Your task to perform on an android device: Add razer deathadder to the cart on walmart.com Image 0: 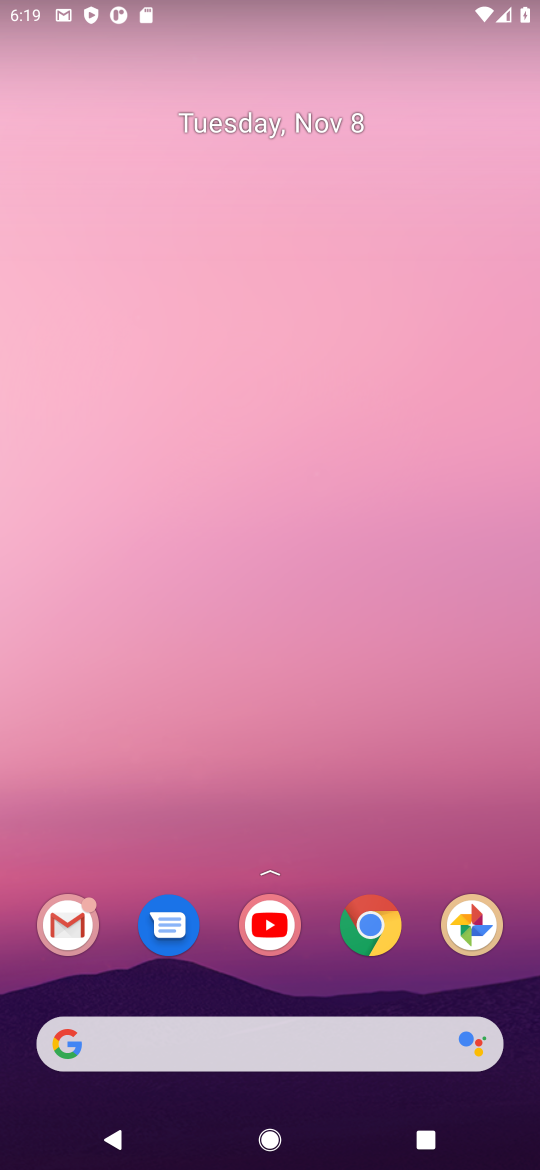
Step 0: click (373, 938)
Your task to perform on an android device: Add razer deathadder to the cart on walmart.com Image 1: 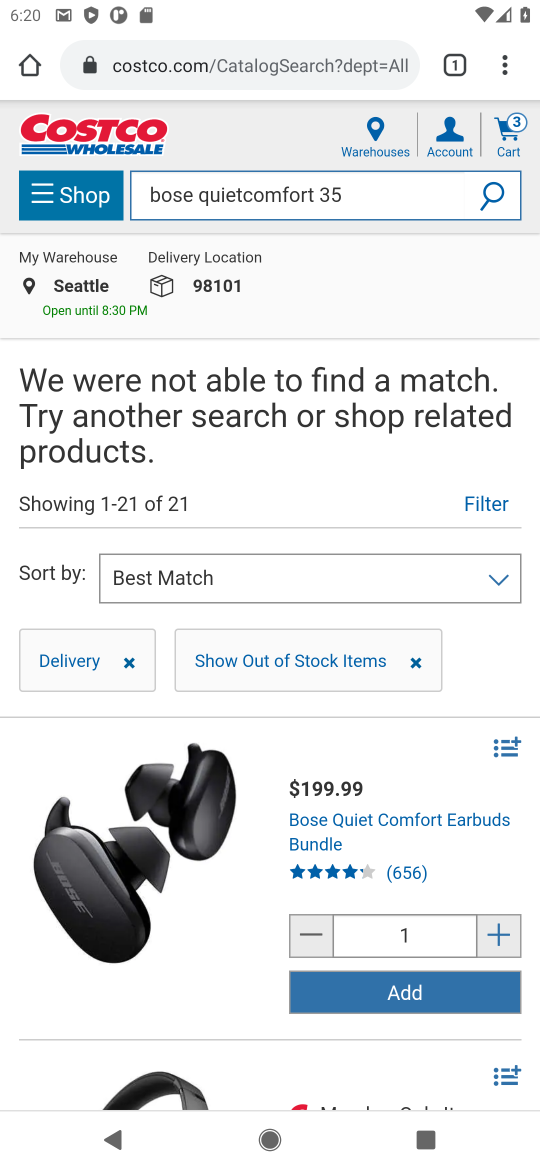
Step 1: click (273, 64)
Your task to perform on an android device: Add razer deathadder to the cart on walmart.com Image 2: 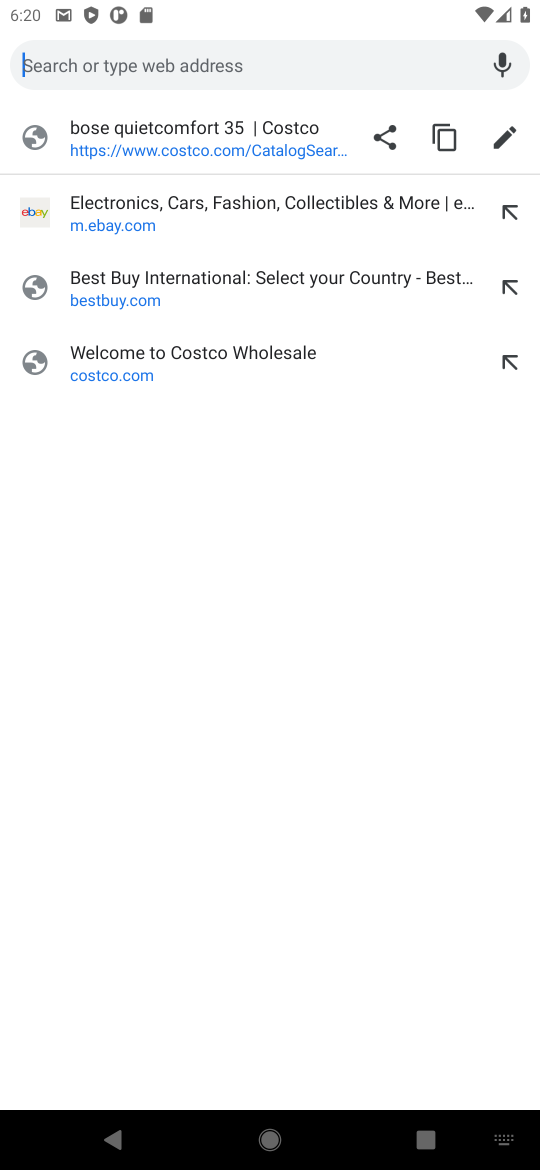
Step 2: type "walmart"
Your task to perform on an android device: Add razer deathadder to the cart on walmart.com Image 3: 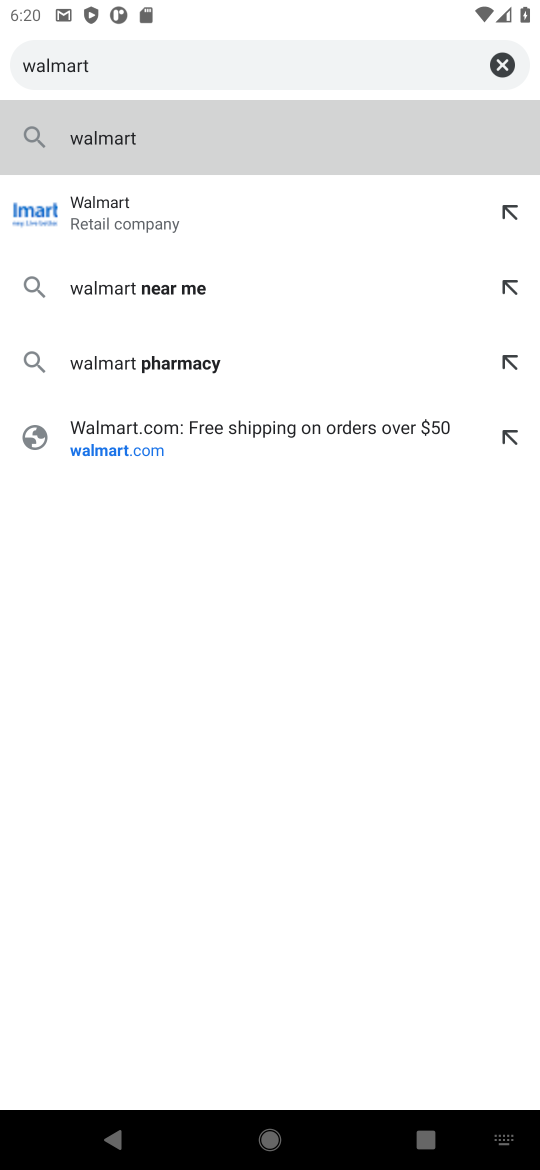
Step 3: click (94, 217)
Your task to perform on an android device: Add razer deathadder to the cart on walmart.com Image 4: 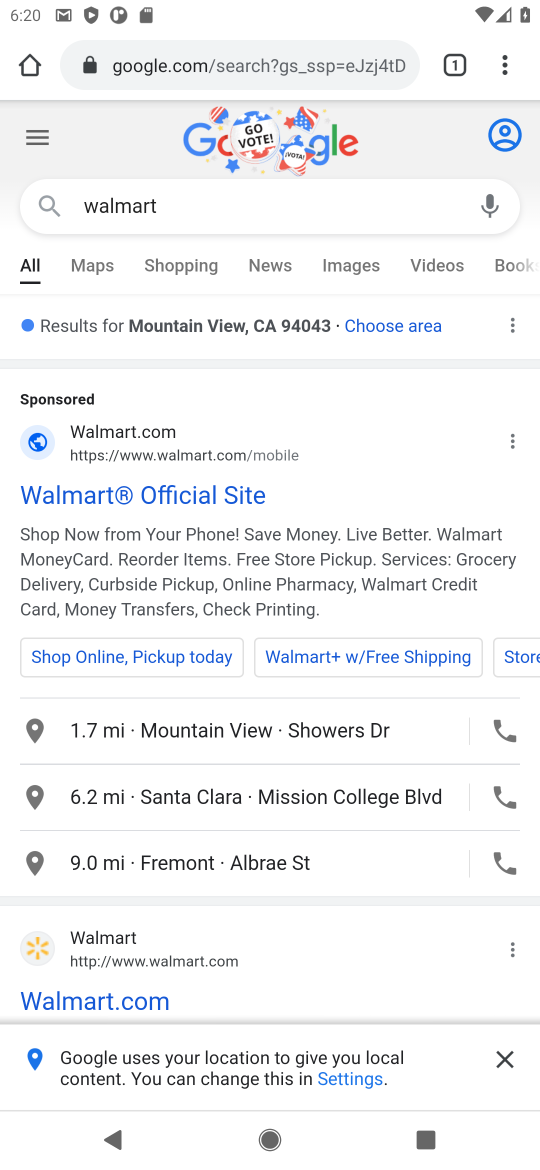
Step 4: click (84, 1003)
Your task to perform on an android device: Add razer deathadder to the cart on walmart.com Image 5: 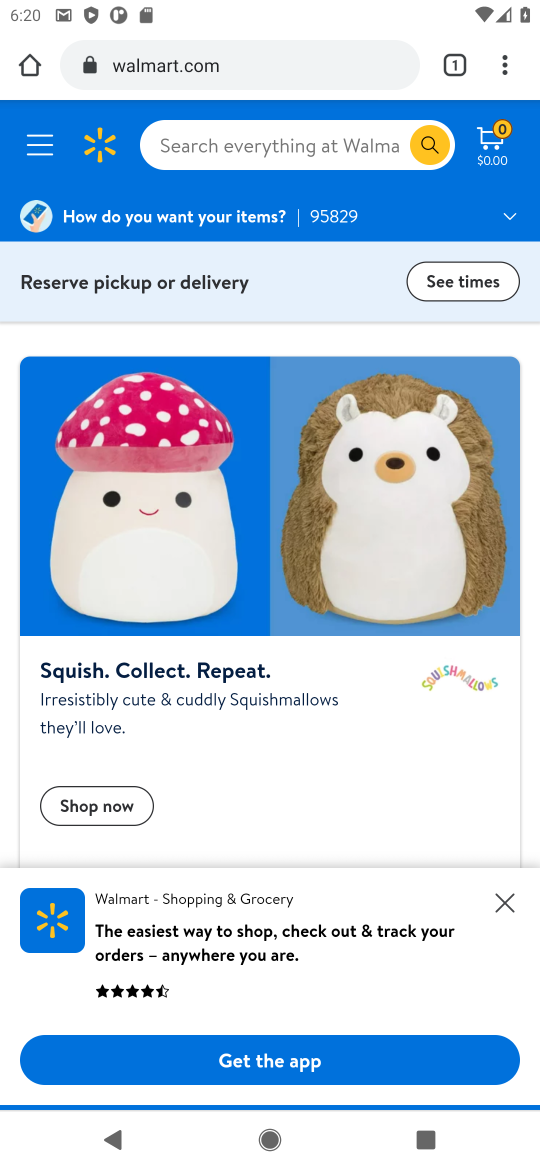
Step 5: click (505, 900)
Your task to perform on an android device: Add razer deathadder to the cart on walmart.com Image 6: 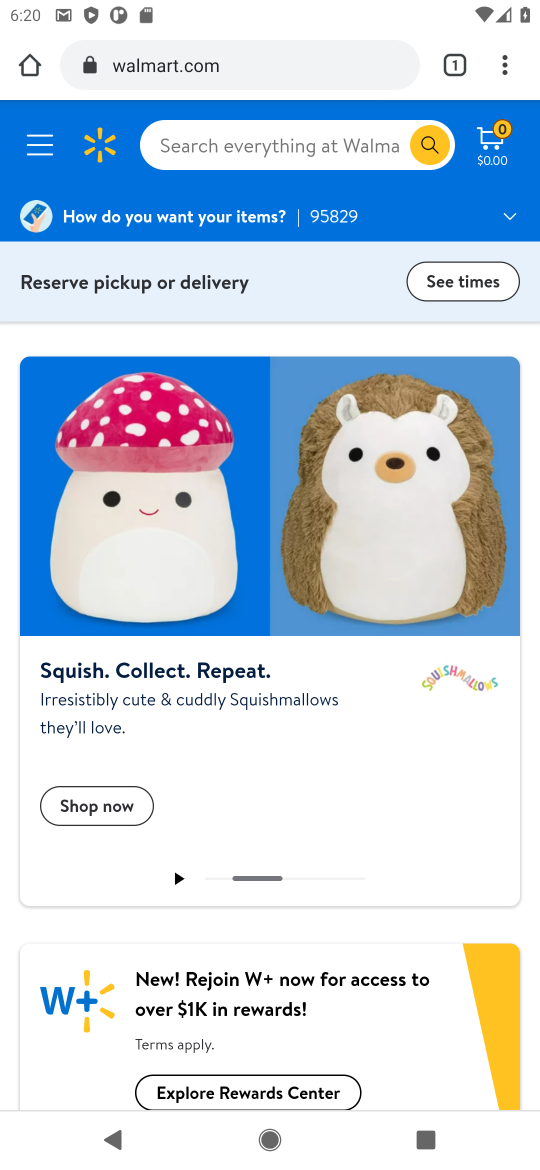
Step 6: click (267, 140)
Your task to perform on an android device: Add razer deathadder to the cart on walmart.com Image 7: 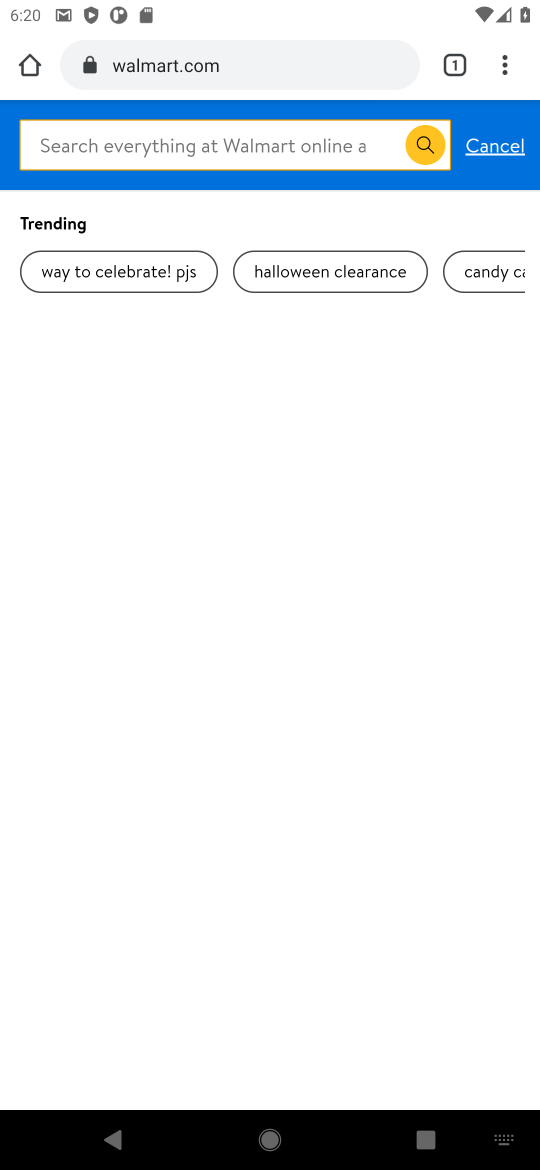
Step 7: type "razer deathadder"
Your task to perform on an android device: Add razer deathadder to the cart on walmart.com Image 8: 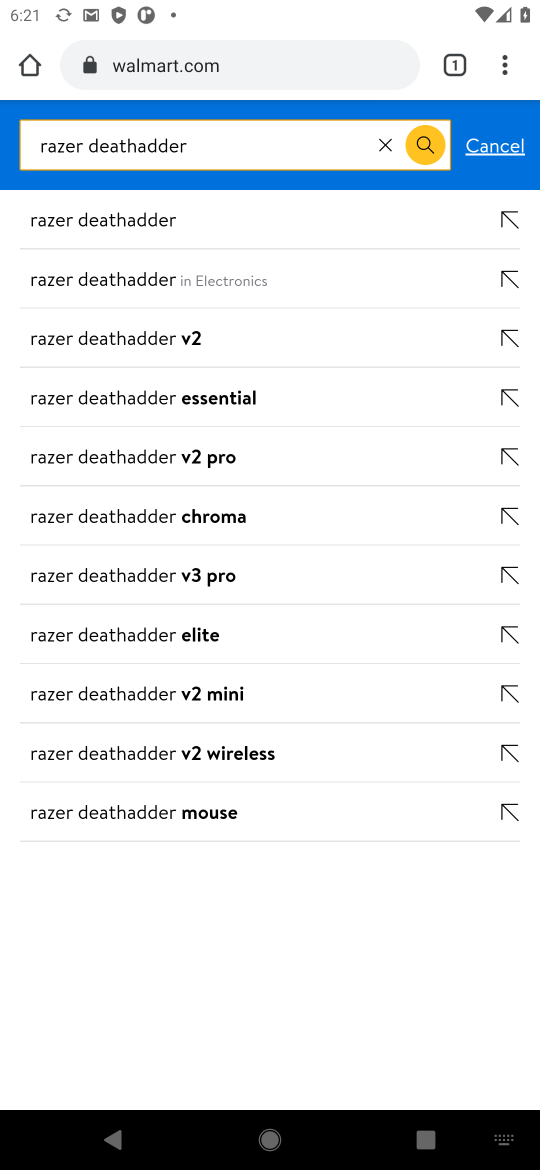
Step 8: click (96, 215)
Your task to perform on an android device: Add razer deathadder to the cart on walmart.com Image 9: 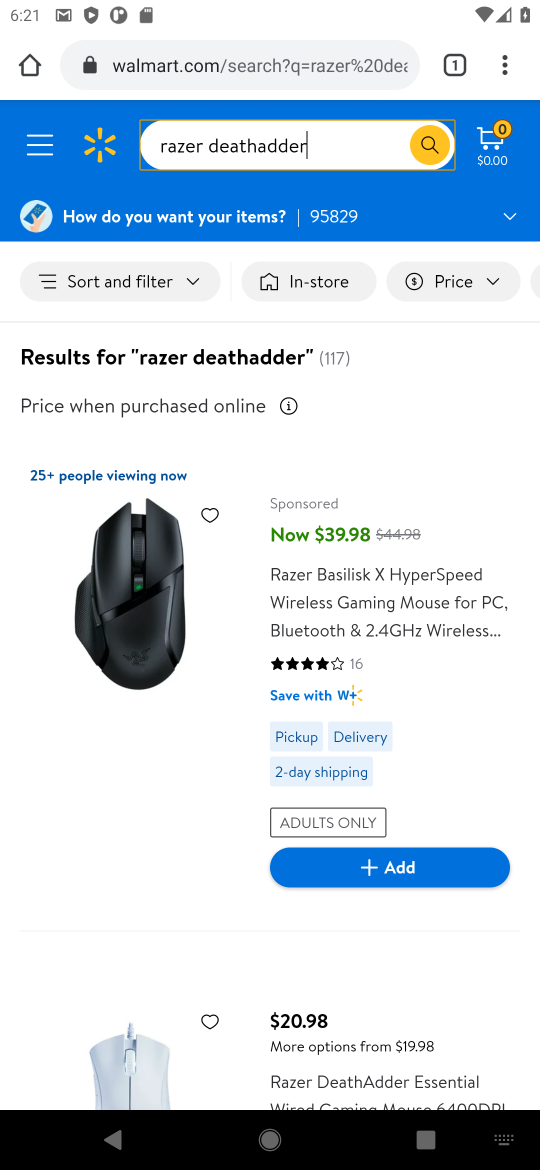
Step 9: drag from (245, 471) to (224, 275)
Your task to perform on an android device: Add razer deathadder to the cart on walmart.com Image 10: 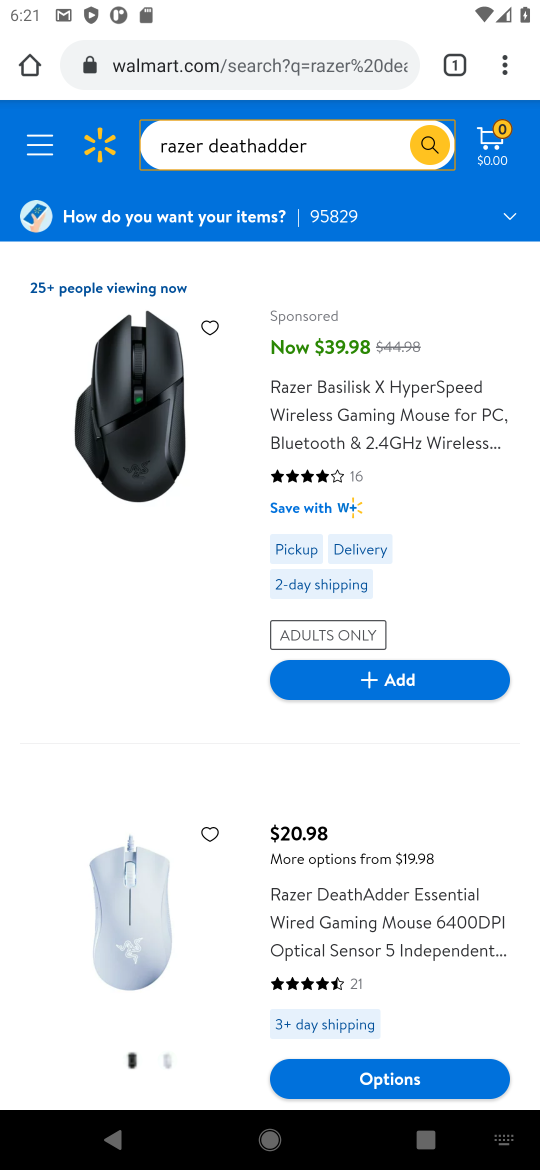
Step 10: drag from (359, 770) to (358, 510)
Your task to perform on an android device: Add razer deathadder to the cart on walmart.com Image 11: 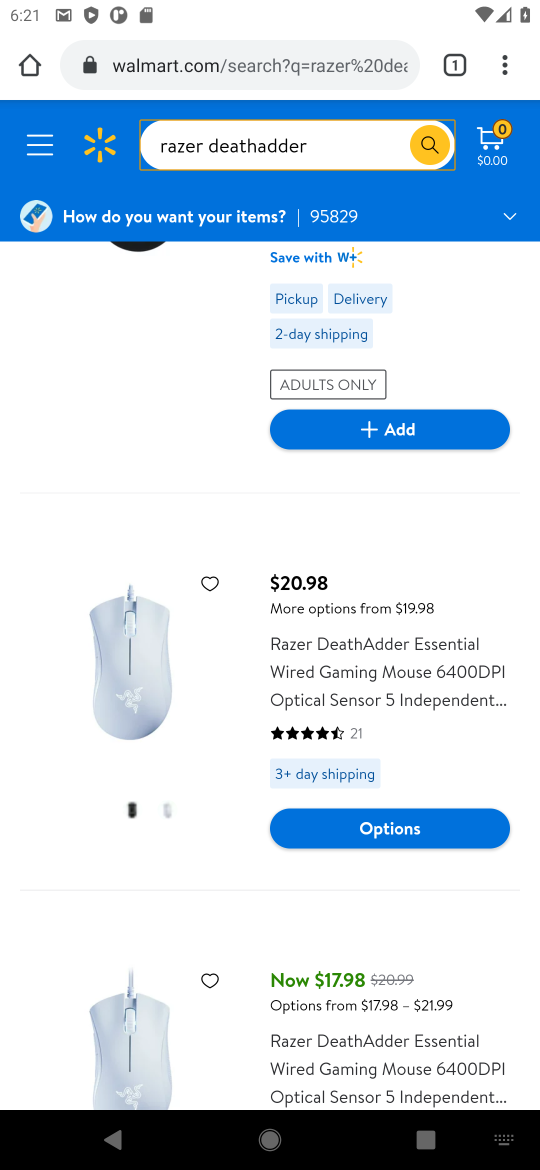
Step 11: click (152, 686)
Your task to perform on an android device: Add razer deathadder to the cart on walmart.com Image 12: 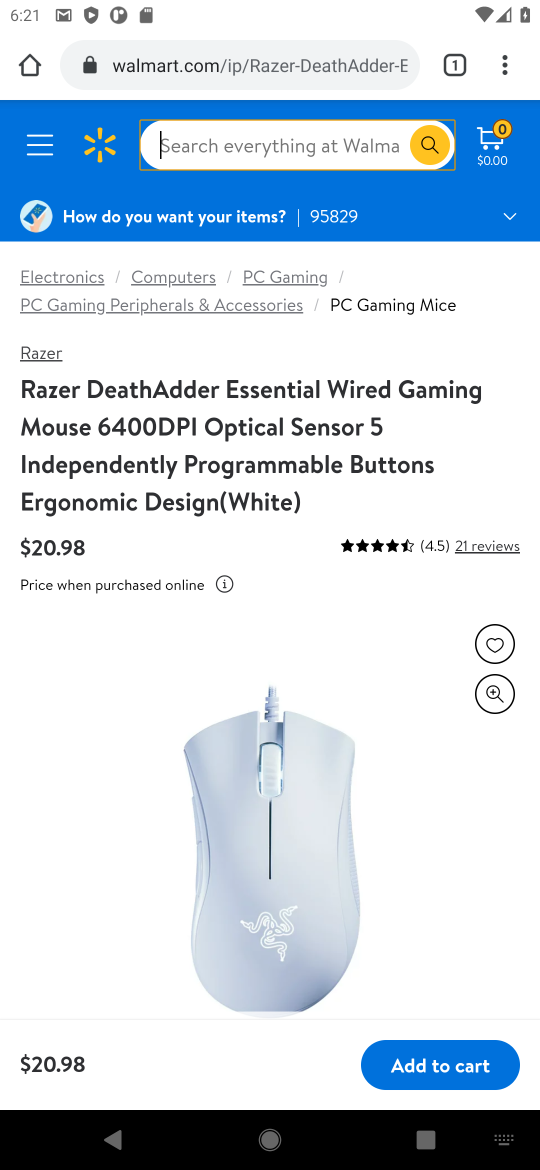
Step 12: drag from (469, 762) to (378, 205)
Your task to perform on an android device: Add razer deathadder to the cart on walmart.com Image 13: 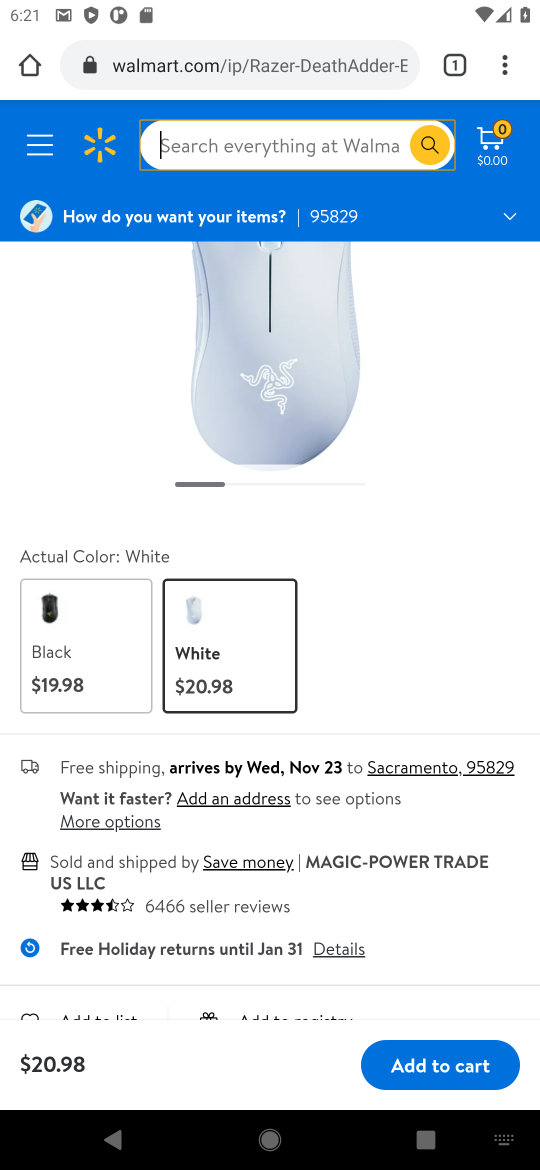
Step 13: click (439, 1068)
Your task to perform on an android device: Add razer deathadder to the cart on walmart.com Image 14: 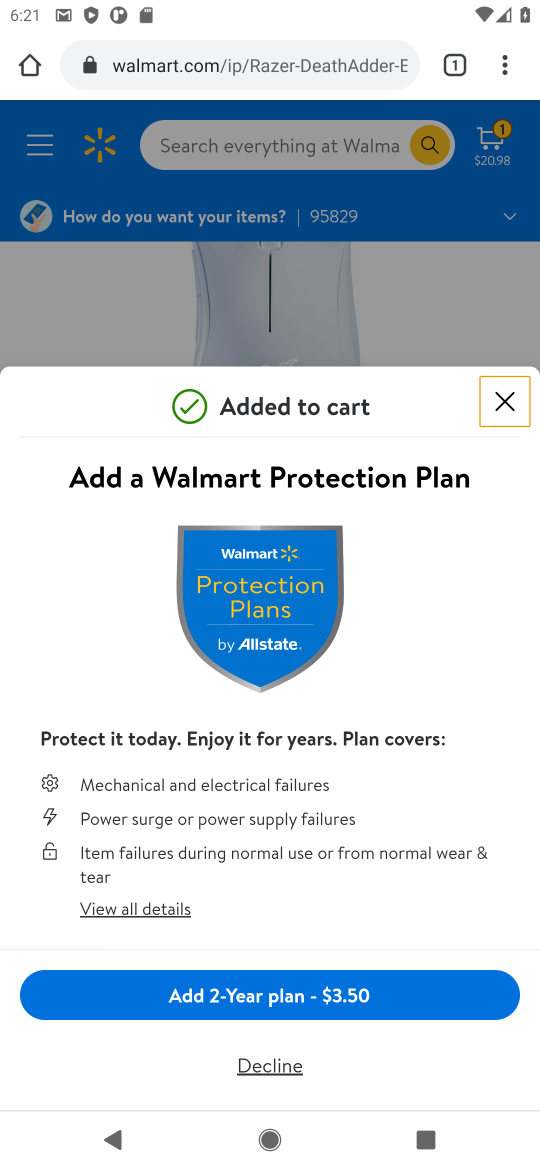
Step 14: click (272, 1068)
Your task to perform on an android device: Add razer deathadder to the cart on walmart.com Image 15: 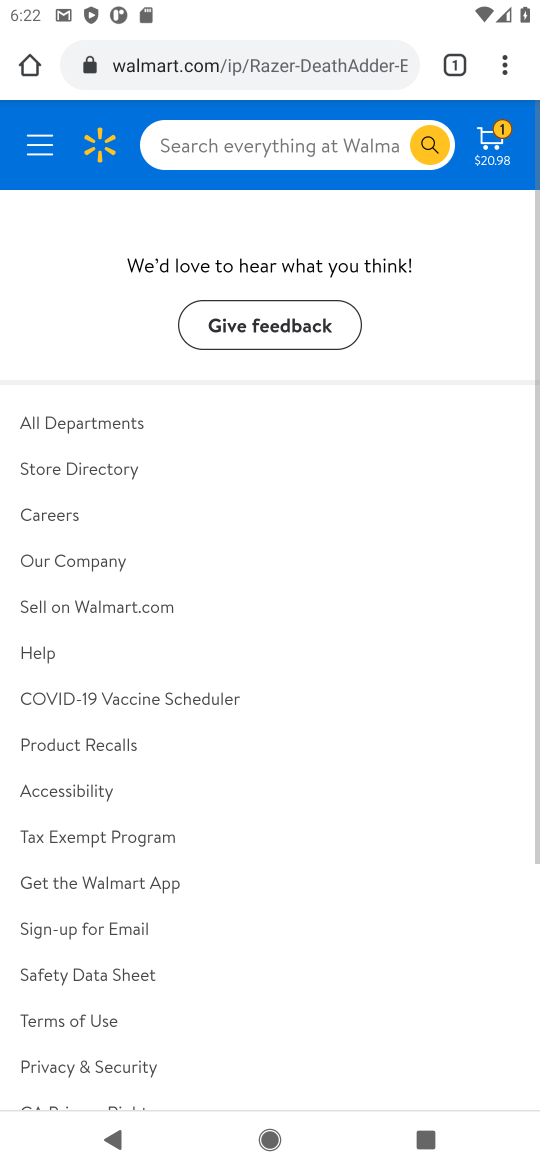
Step 15: task complete